Your task to perform on an android device: turn off location Image 0: 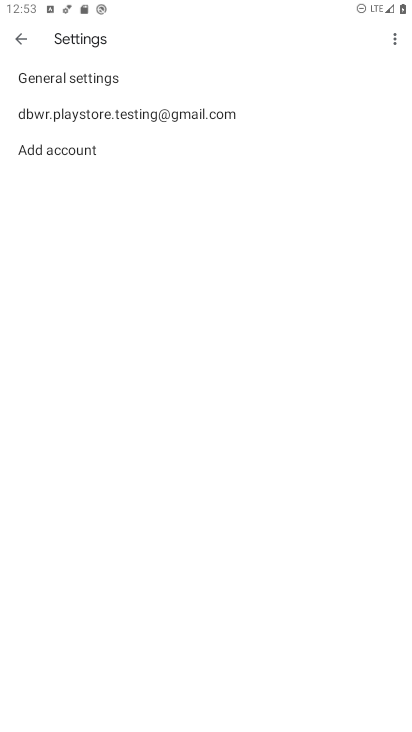
Step 0: press home button
Your task to perform on an android device: turn off location Image 1: 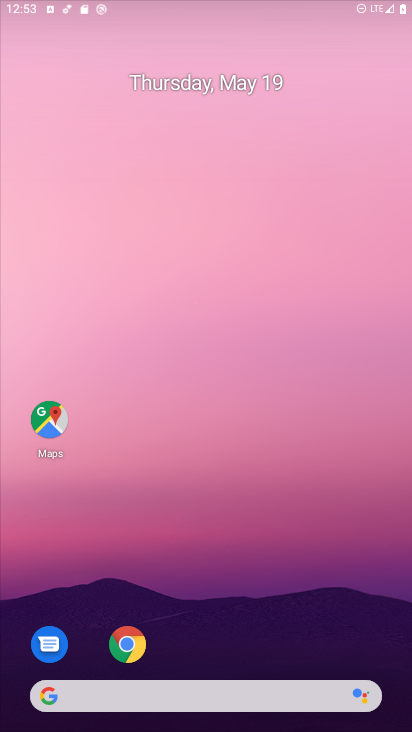
Step 1: drag from (369, 666) to (248, 34)
Your task to perform on an android device: turn off location Image 2: 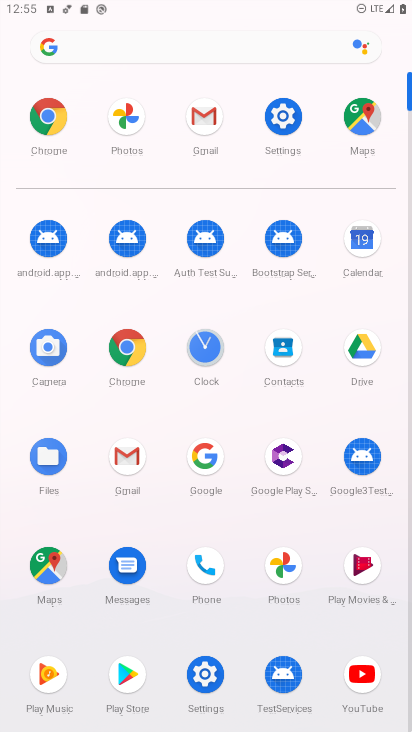
Step 2: click (286, 136)
Your task to perform on an android device: turn off location Image 3: 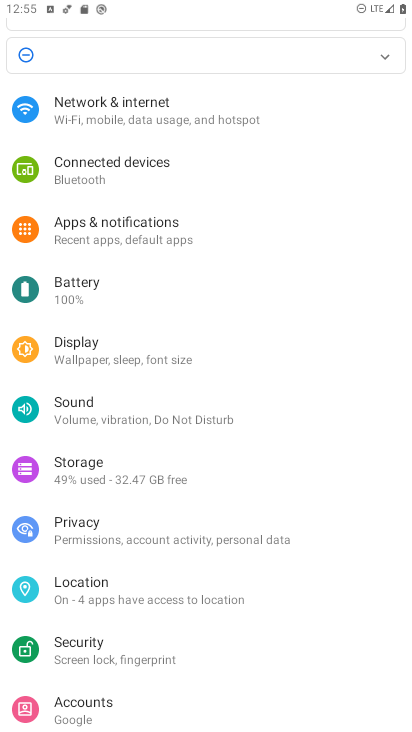
Step 3: click (120, 607)
Your task to perform on an android device: turn off location Image 4: 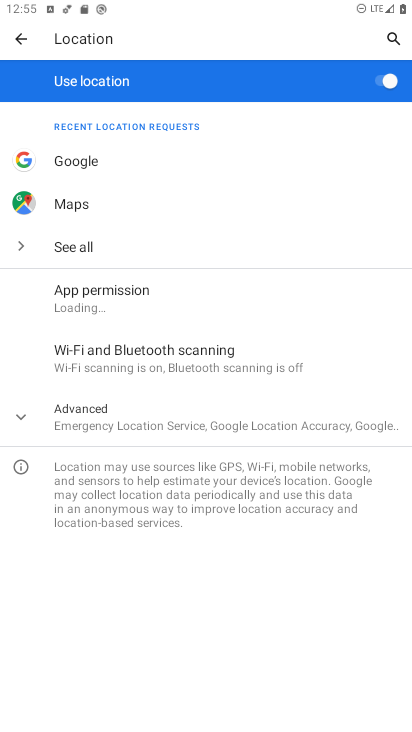
Step 4: click (342, 80)
Your task to perform on an android device: turn off location Image 5: 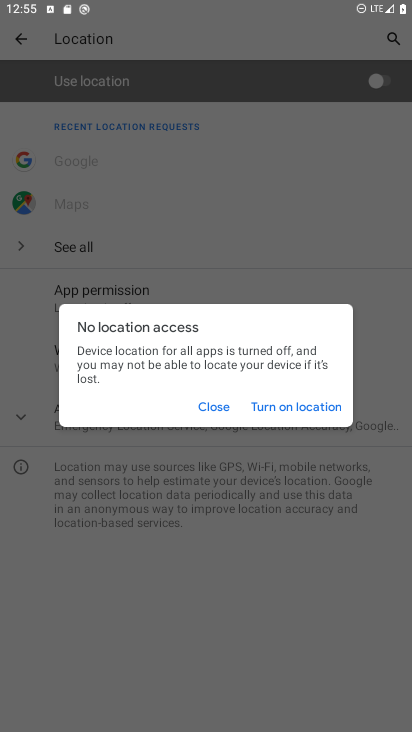
Step 5: task complete